Your task to perform on an android device: Add jbl flip 4 to the cart on bestbuy.com Image 0: 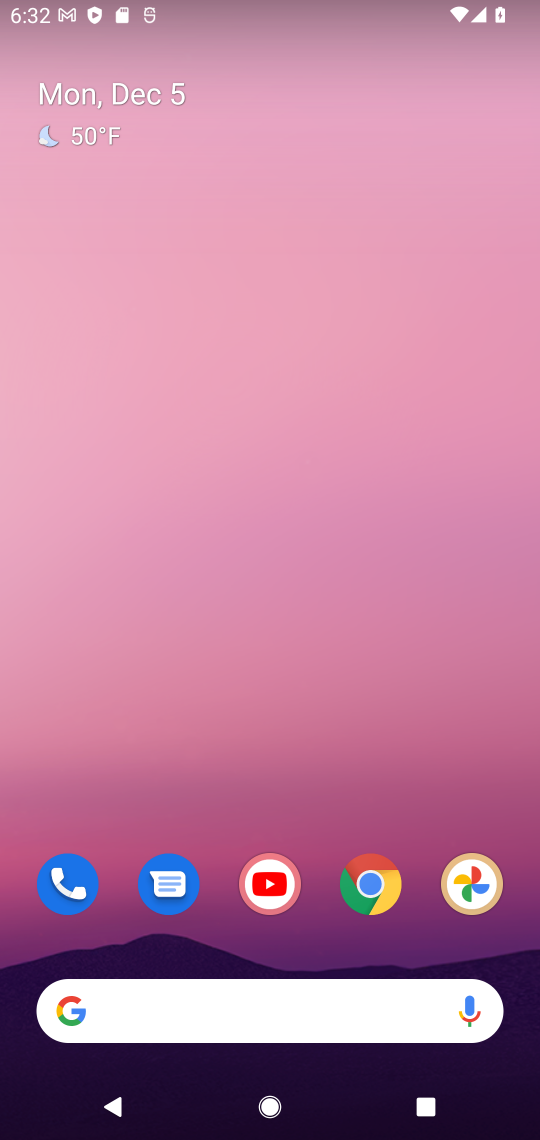
Step 0: click (366, 890)
Your task to perform on an android device: Add jbl flip 4 to the cart on bestbuy.com Image 1: 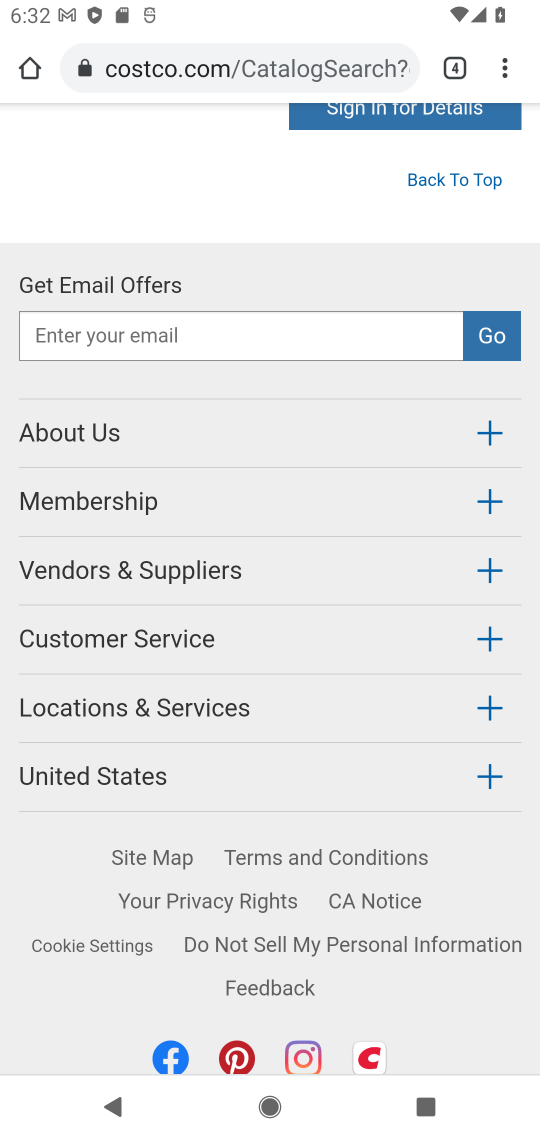
Step 1: click (453, 69)
Your task to perform on an android device: Add jbl flip 4 to the cart on bestbuy.com Image 2: 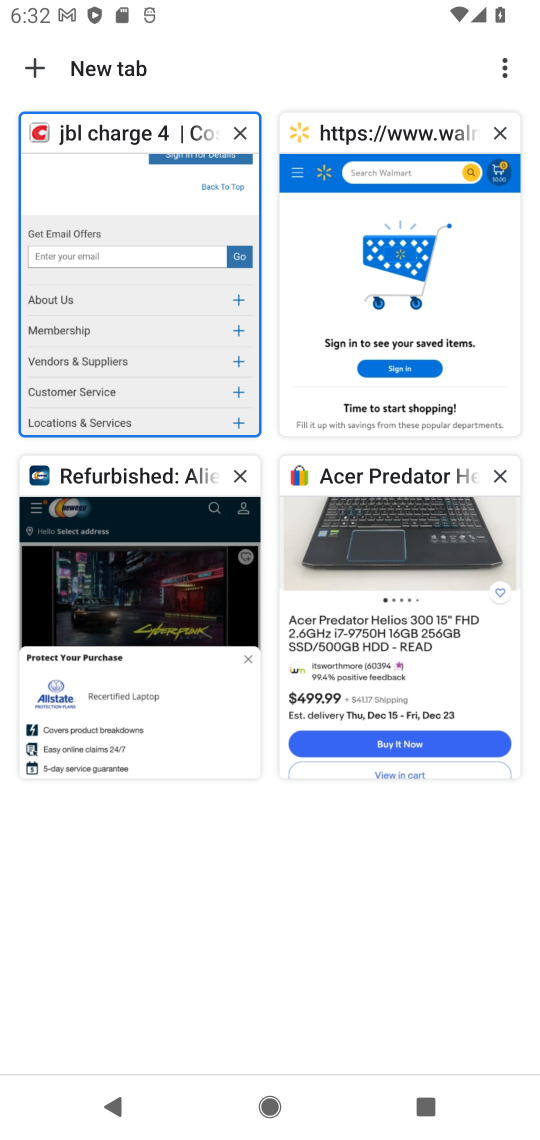
Step 2: click (31, 66)
Your task to perform on an android device: Add jbl flip 4 to the cart on bestbuy.com Image 3: 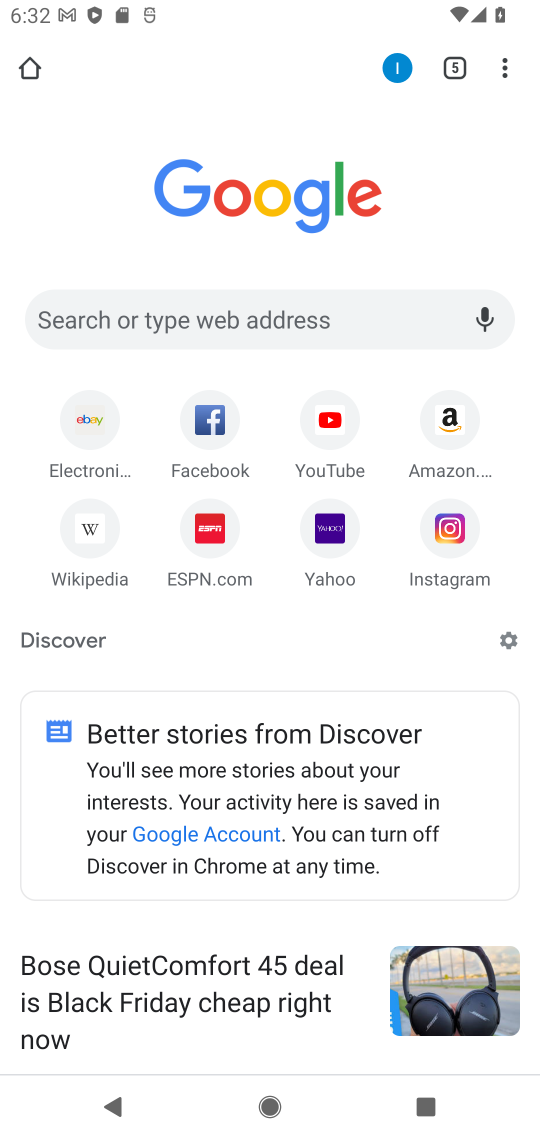
Step 3: click (275, 310)
Your task to perform on an android device: Add jbl flip 4 to the cart on bestbuy.com Image 4: 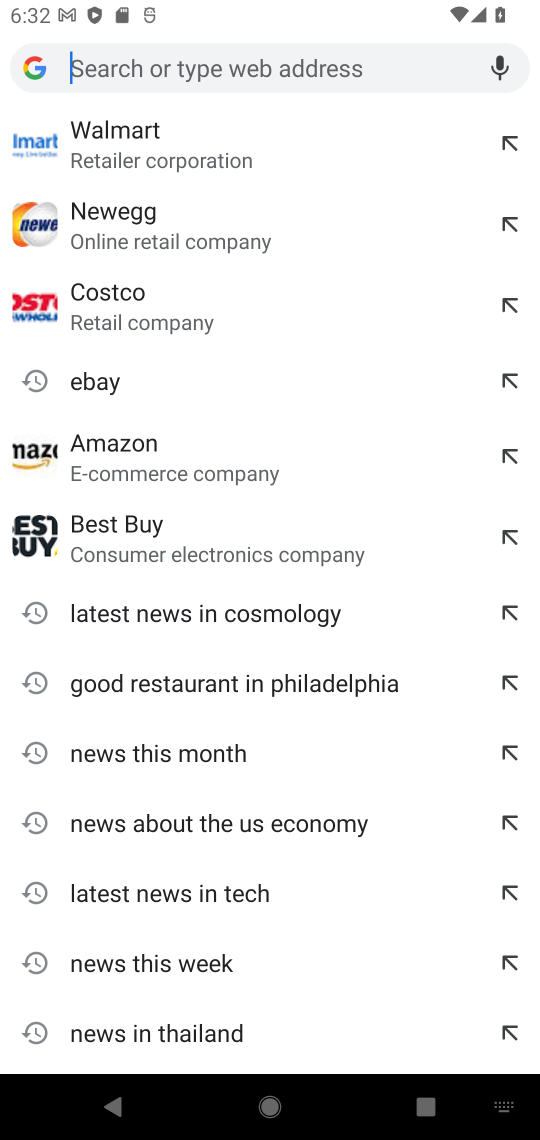
Step 4: click (140, 546)
Your task to perform on an android device: Add jbl flip 4 to the cart on bestbuy.com Image 5: 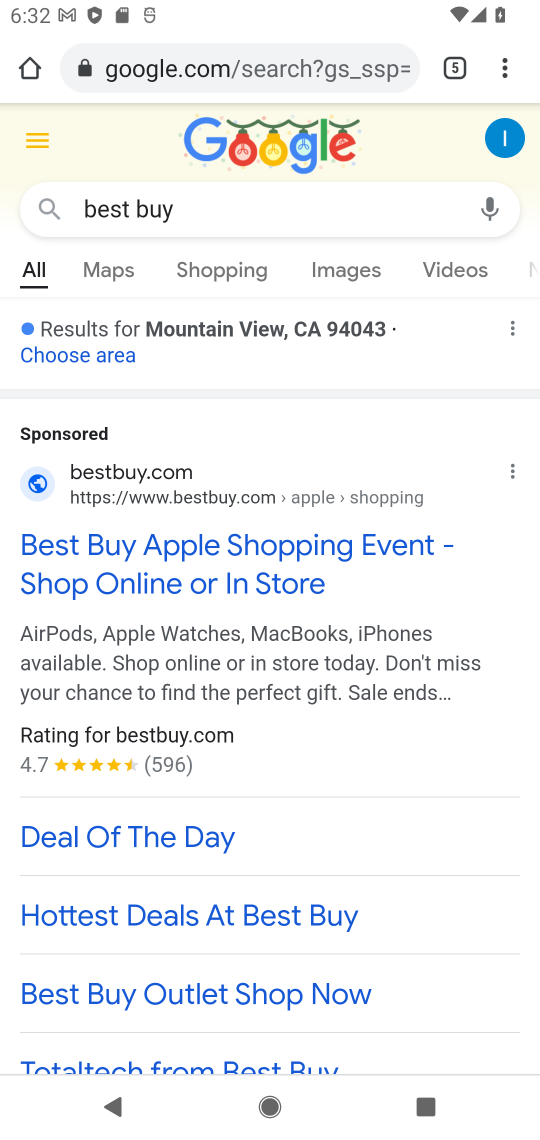
Step 5: drag from (326, 792) to (332, 204)
Your task to perform on an android device: Add jbl flip 4 to the cart on bestbuy.com Image 6: 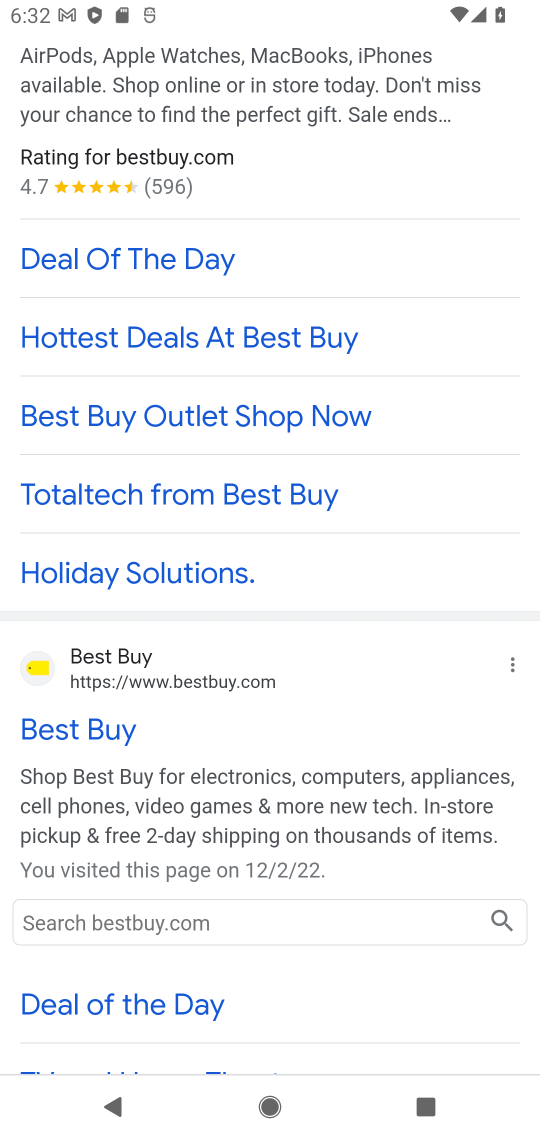
Step 6: click (99, 735)
Your task to perform on an android device: Add jbl flip 4 to the cart on bestbuy.com Image 7: 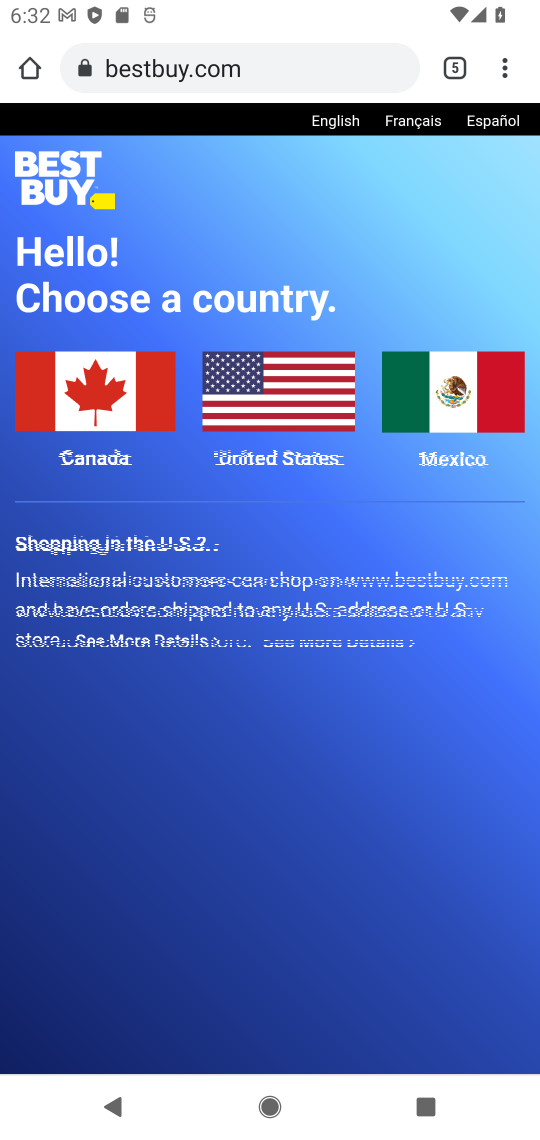
Step 7: click (291, 387)
Your task to perform on an android device: Add jbl flip 4 to the cart on bestbuy.com Image 8: 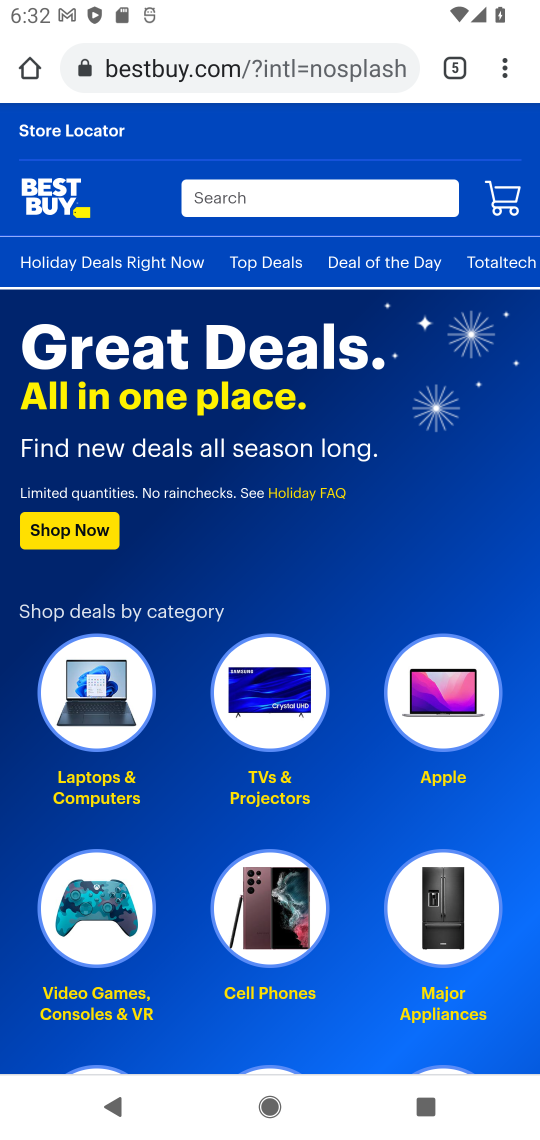
Step 8: click (273, 190)
Your task to perform on an android device: Add jbl flip 4 to the cart on bestbuy.com Image 9: 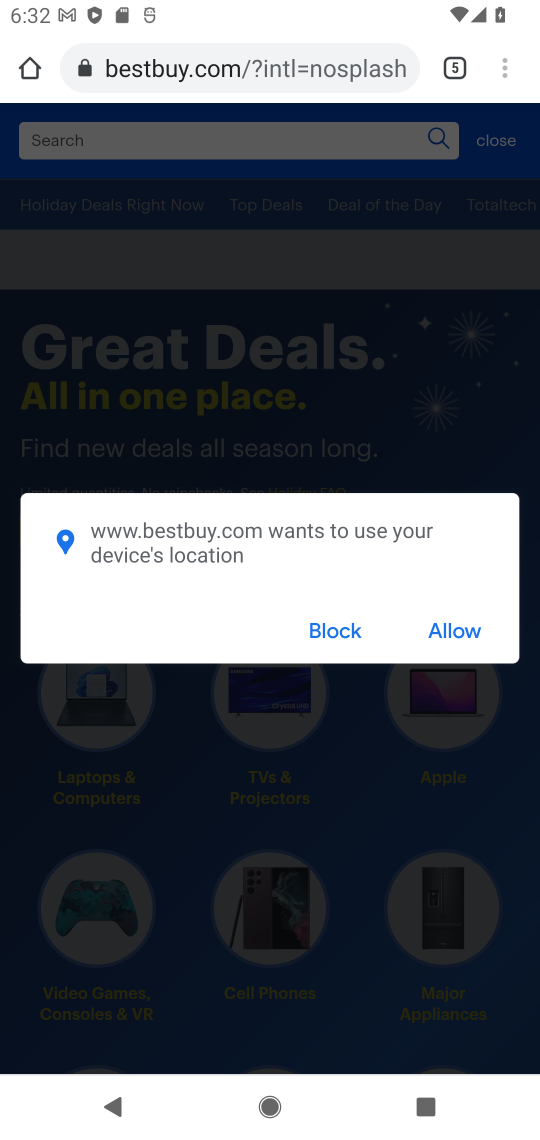
Step 9: click (319, 630)
Your task to perform on an android device: Add jbl flip 4 to the cart on bestbuy.com Image 10: 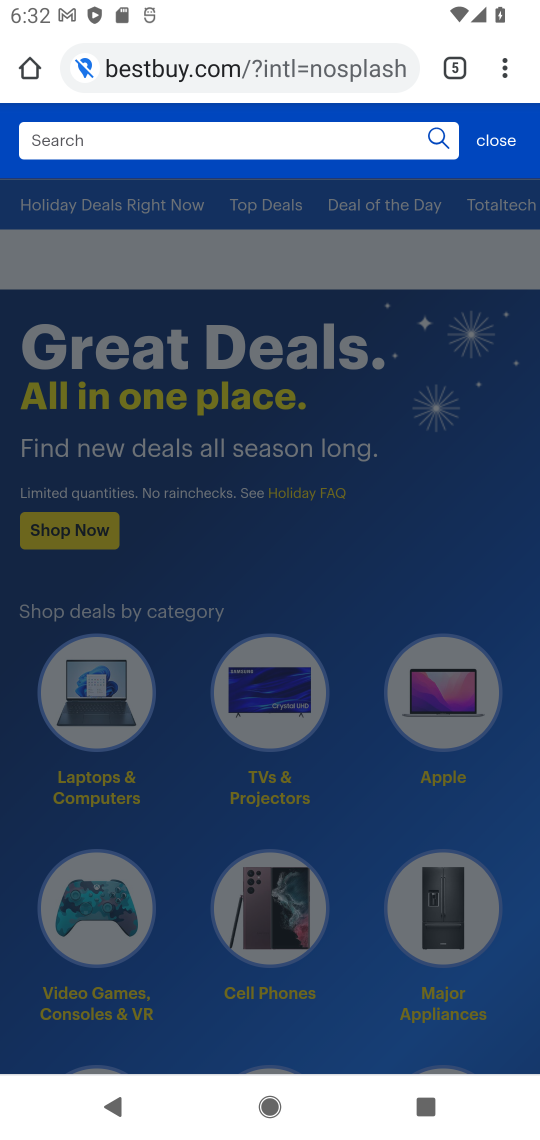
Step 10: click (124, 141)
Your task to perform on an android device: Add jbl flip 4 to the cart on bestbuy.com Image 11: 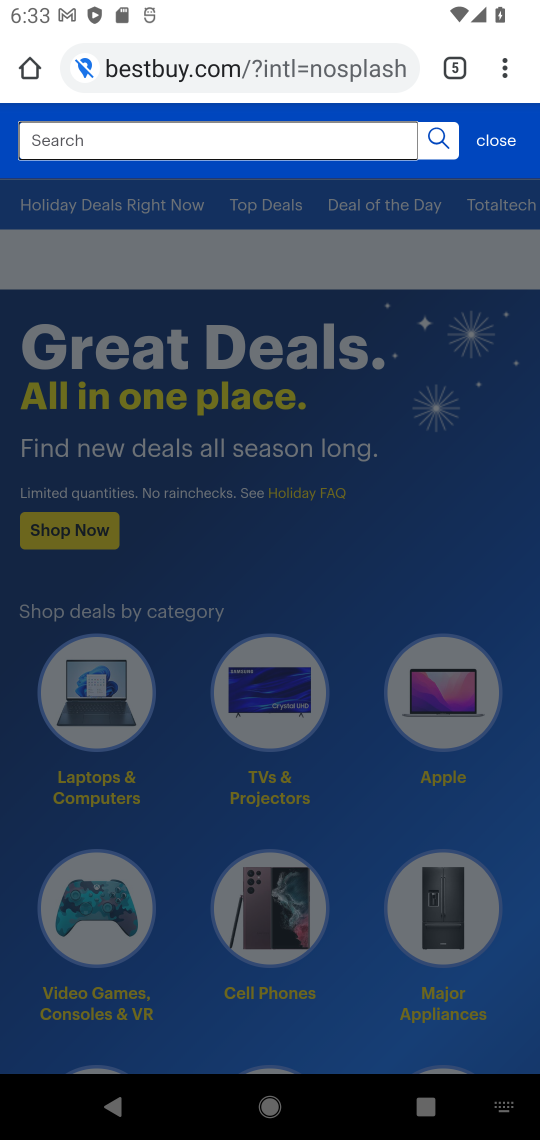
Step 11: type "jbl charge 4"
Your task to perform on an android device: Add jbl flip 4 to the cart on bestbuy.com Image 12: 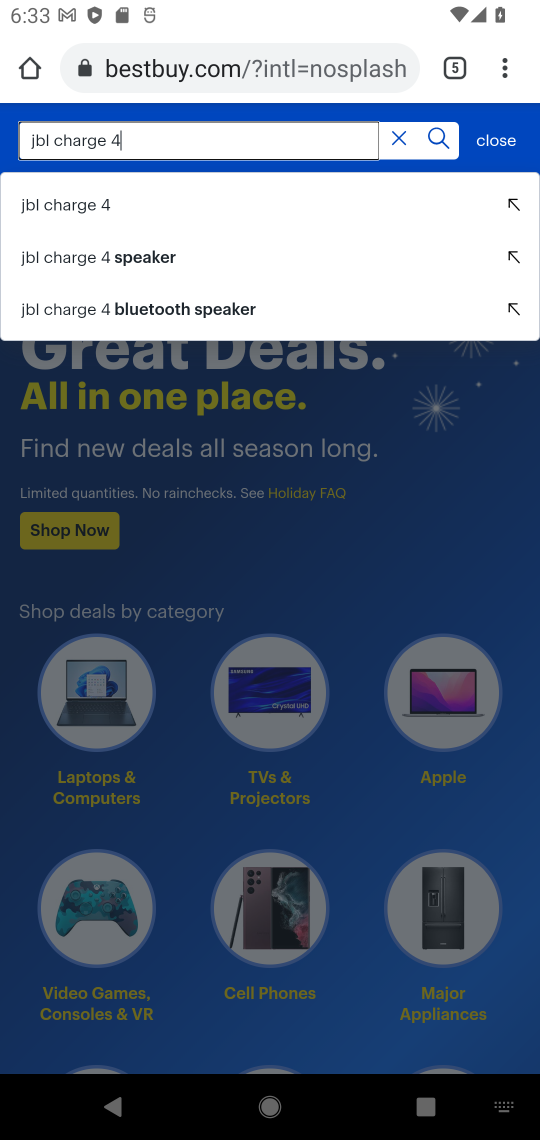
Step 12: click (79, 195)
Your task to perform on an android device: Add jbl flip 4 to the cart on bestbuy.com Image 13: 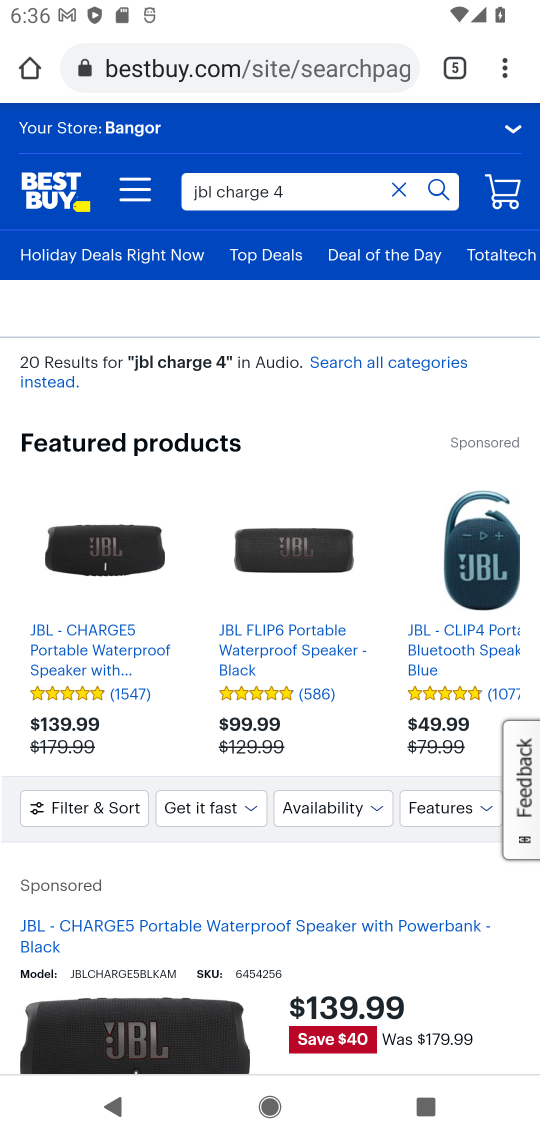
Step 13: drag from (389, 961) to (422, 279)
Your task to perform on an android device: Add jbl flip 4 to the cart on bestbuy.com Image 14: 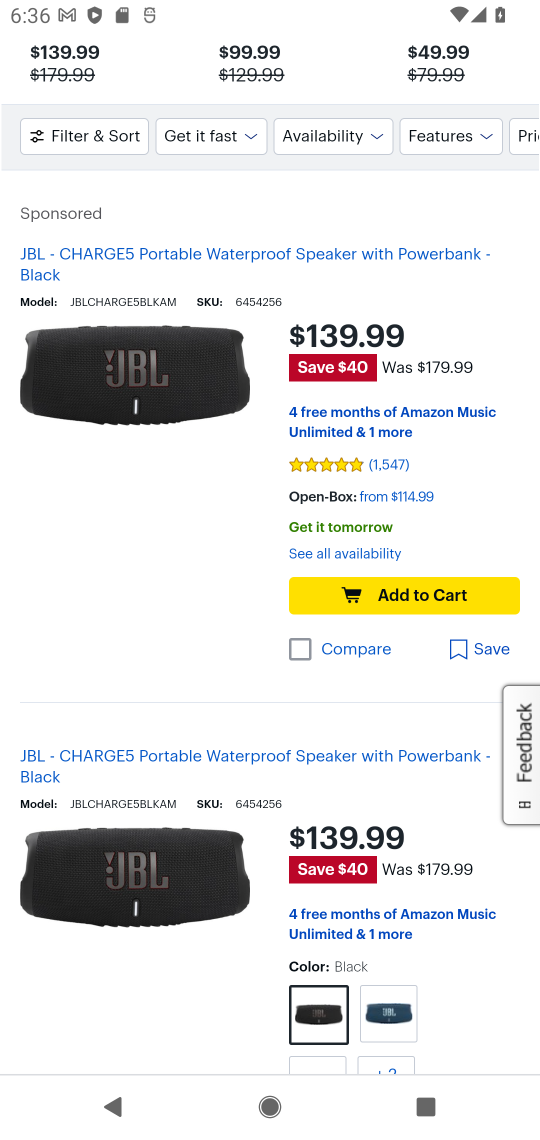
Step 14: drag from (287, 345) to (290, 684)
Your task to perform on an android device: Add jbl flip 4 to the cart on bestbuy.com Image 15: 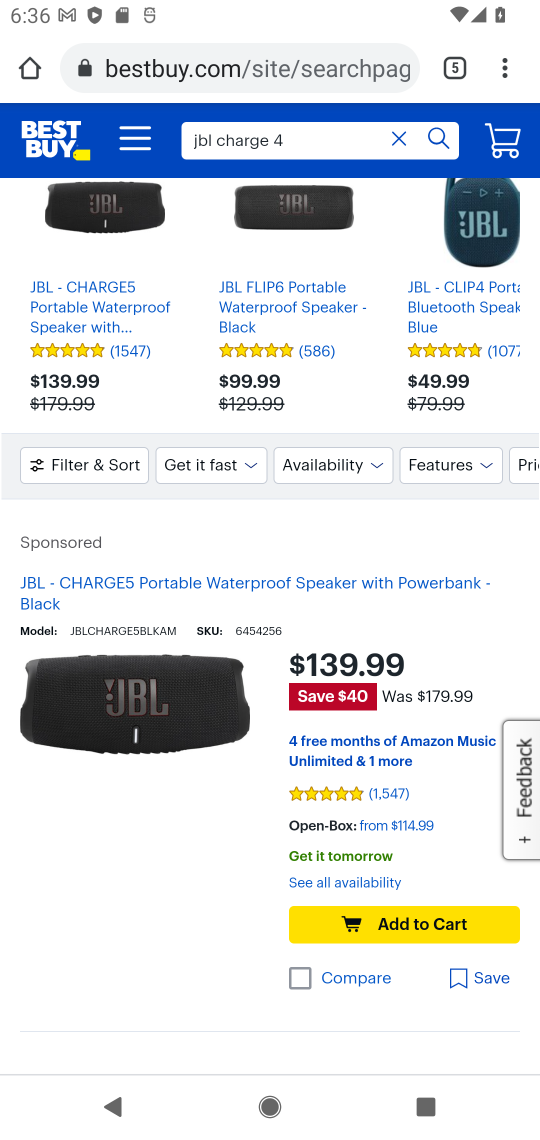
Step 15: click (417, 922)
Your task to perform on an android device: Add jbl flip 4 to the cart on bestbuy.com Image 16: 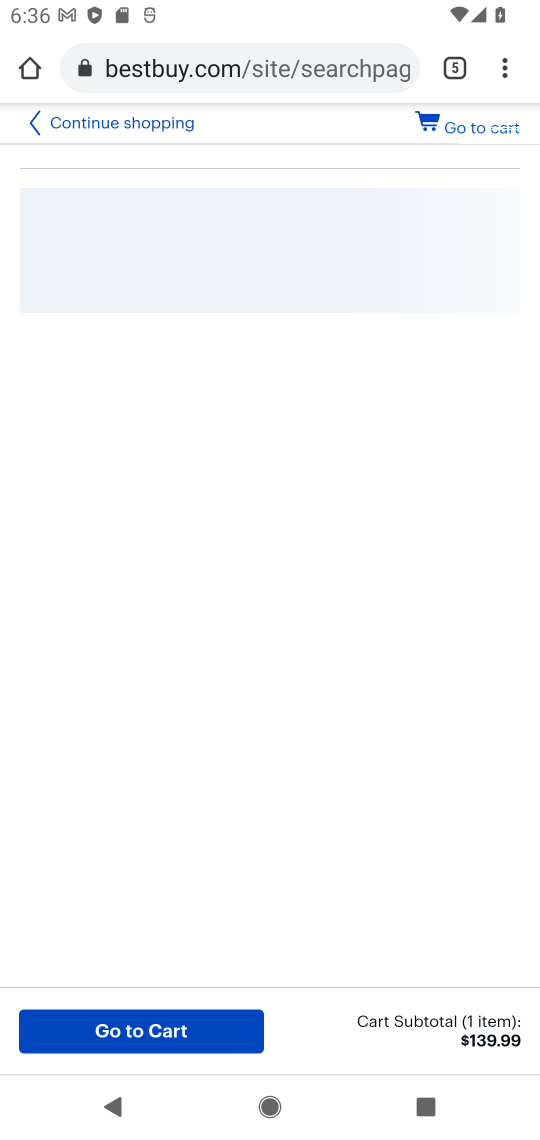
Step 16: task complete